Your task to perform on an android device: Open wifi settings Image 0: 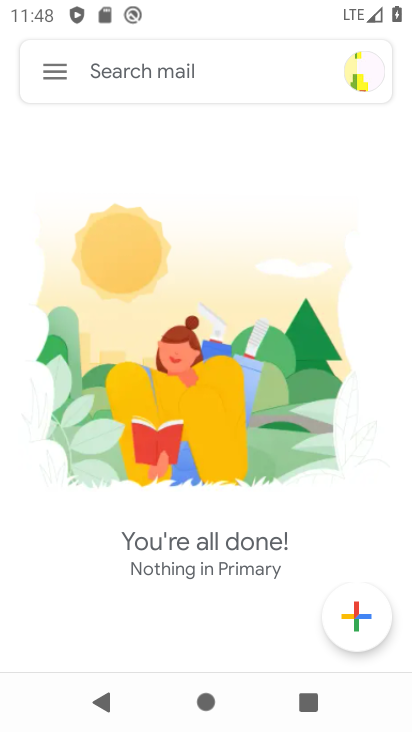
Step 0: press home button
Your task to perform on an android device: Open wifi settings Image 1: 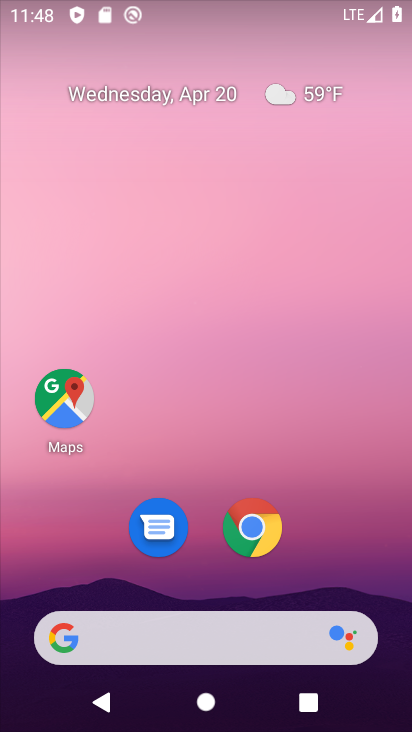
Step 1: drag from (352, 474) to (318, 110)
Your task to perform on an android device: Open wifi settings Image 2: 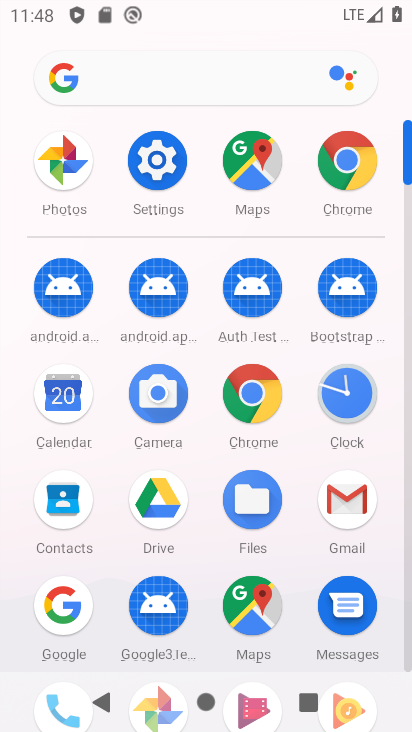
Step 2: click (155, 162)
Your task to perform on an android device: Open wifi settings Image 3: 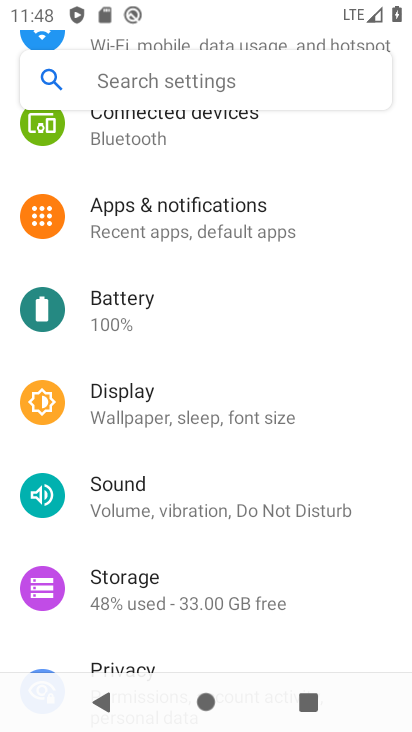
Step 3: drag from (241, 213) to (271, 535)
Your task to perform on an android device: Open wifi settings Image 4: 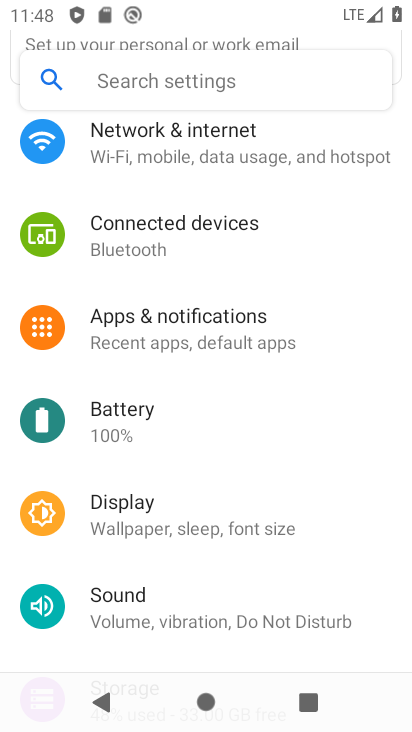
Step 4: click (286, 153)
Your task to perform on an android device: Open wifi settings Image 5: 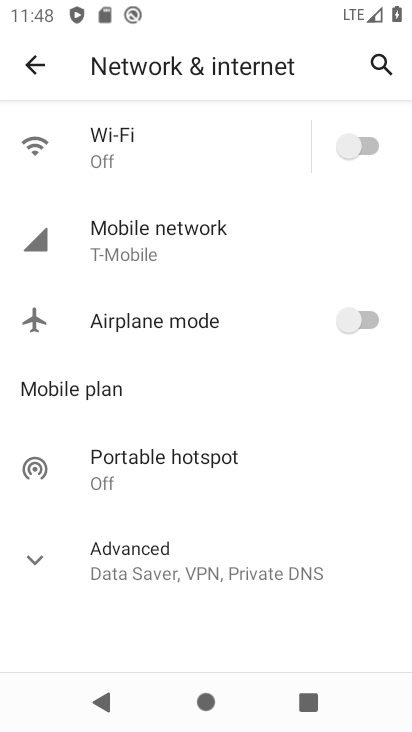
Step 5: click (219, 149)
Your task to perform on an android device: Open wifi settings Image 6: 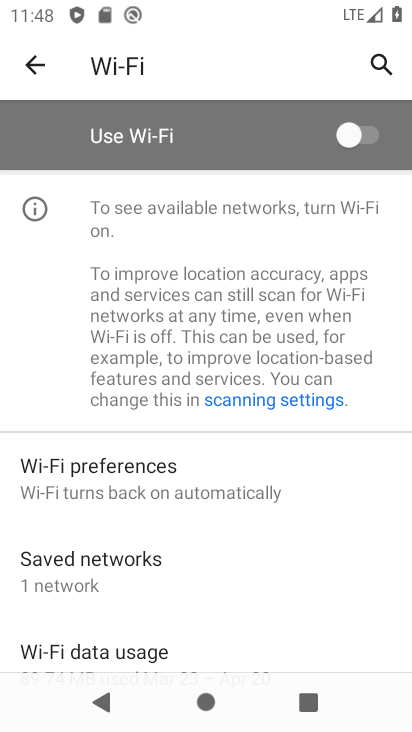
Step 6: task complete